Your task to perform on an android device: Go to Yahoo.com Image 0: 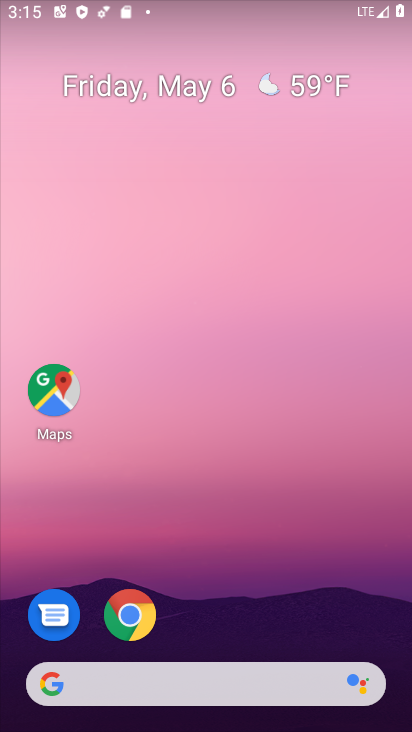
Step 0: drag from (282, 570) to (232, 194)
Your task to perform on an android device: Go to Yahoo.com Image 1: 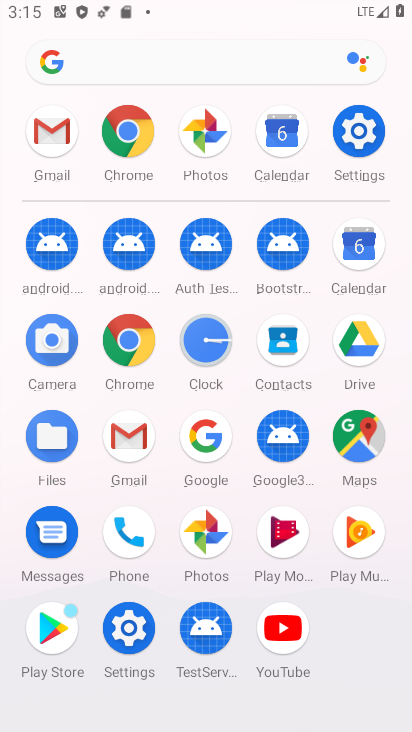
Step 1: click (132, 338)
Your task to perform on an android device: Go to Yahoo.com Image 2: 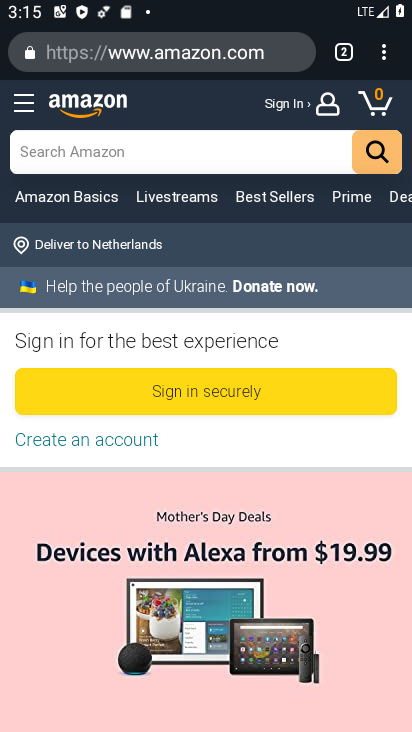
Step 2: click (371, 56)
Your task to perform on an android device: Go to Yahoo.com Image 3: 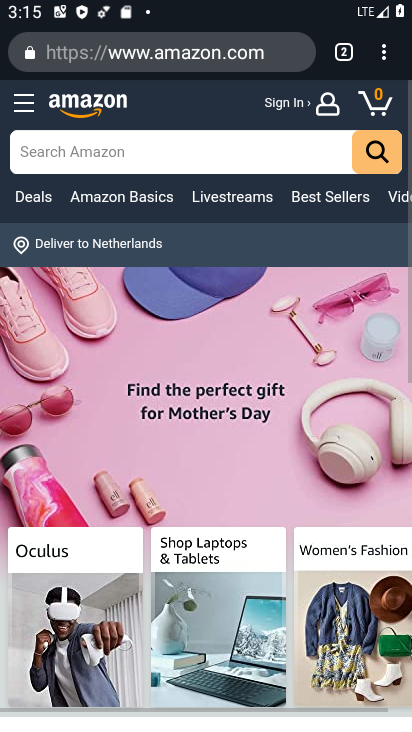
Step 3: click (369, 43)
Your task to perform on an android device: Go to Yahoo.com Image 4: 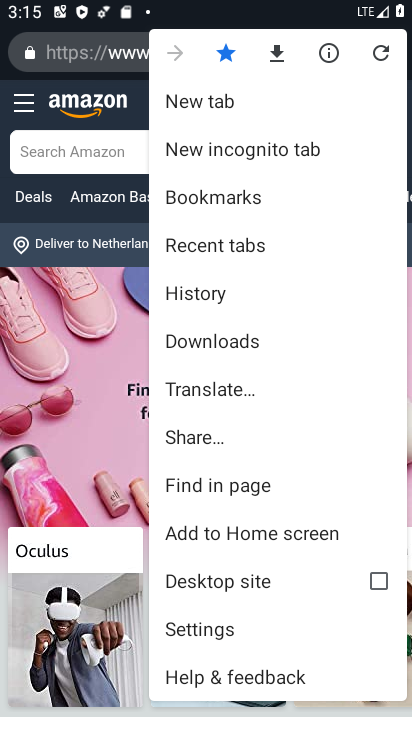
Step 4: click (235, 95)
Your task to perform on an android device: Go to Yahoo.com Image 5: 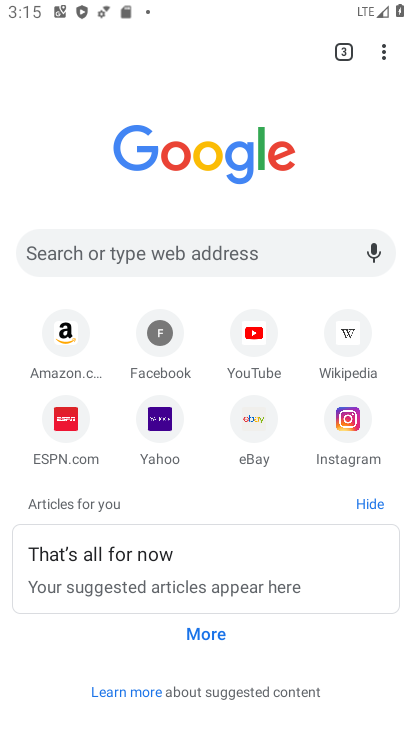
Step 5: click (153, 419)
Your task to perform on an android device: Go to Yahoo.com Image 6: 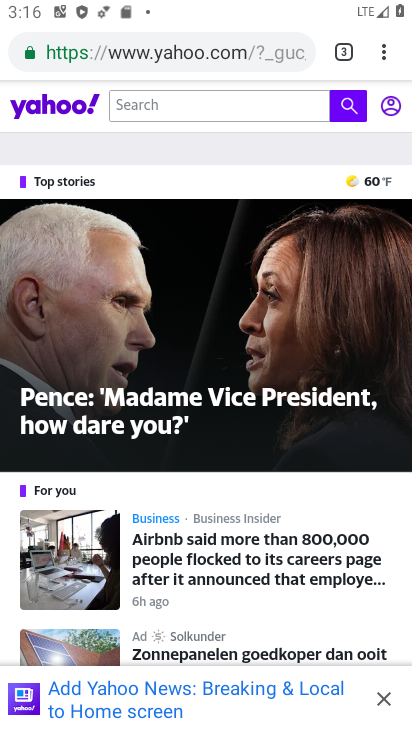
Step 6: task complete